Your task to perform on an android device: Go to accessibility settings Image 0: 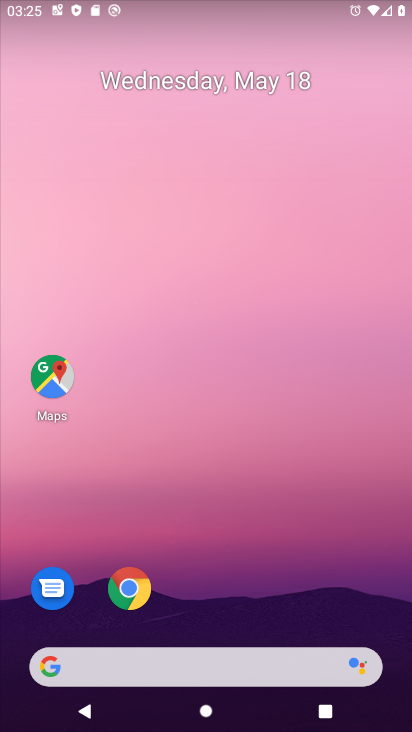
Step 0: drag from (2, 674) to (249, 13)
Your task to perform on an android device: Go to accessibility settings Image 1: 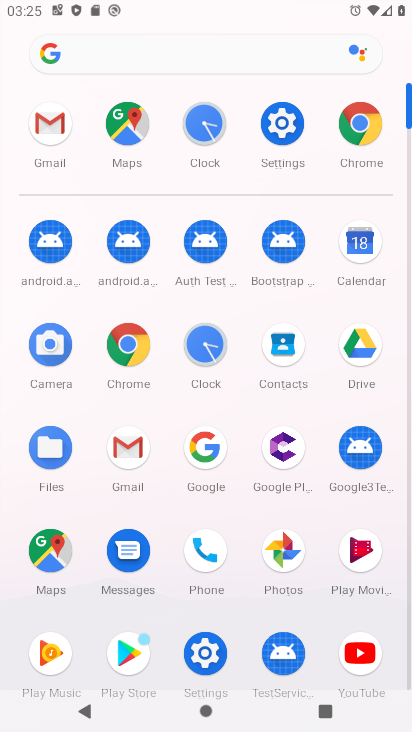
Step 1: click (286, 122)
Your task to perform on an android device: Go to accessibility settings Image 2: 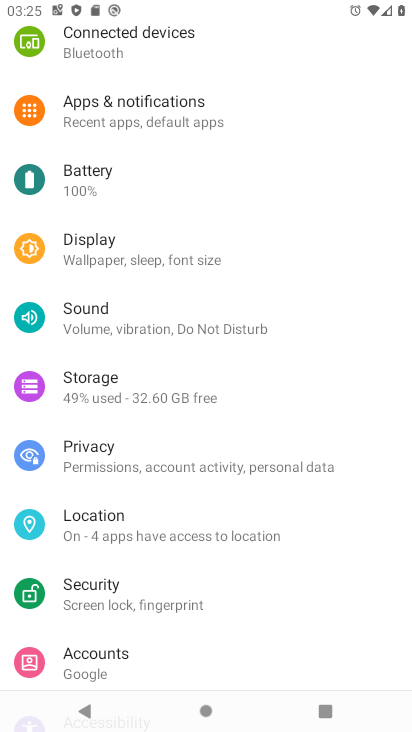
Step 2: drag from (101, 641) to (210, 208)
Your task to perform on an android device: Go to accessibility settings Image 3: 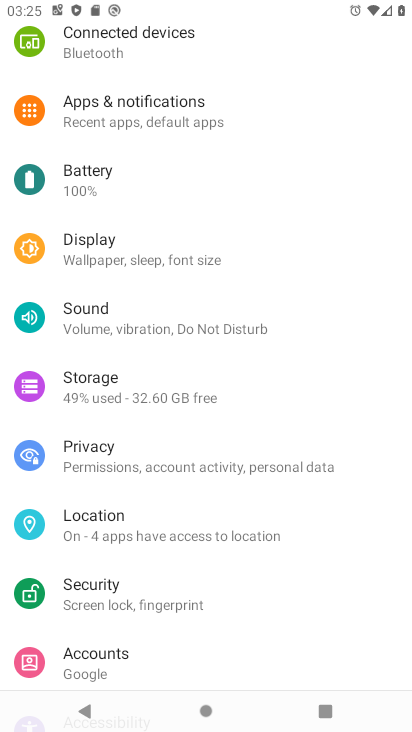
Step 3: drag from (67, 642) to (198, 234)
Your task to perform on an android device: Go to accessibility settings Image 4: 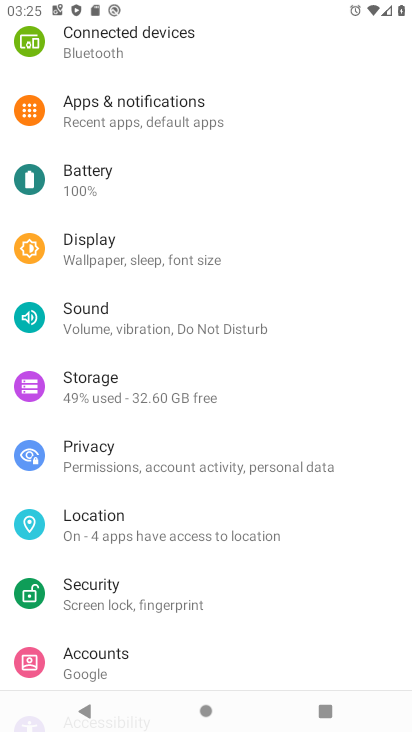
Step 4: drag from (13, 628) to (223, 153)
Your task to perform on an android device: Go to accessibility settings Image 5: 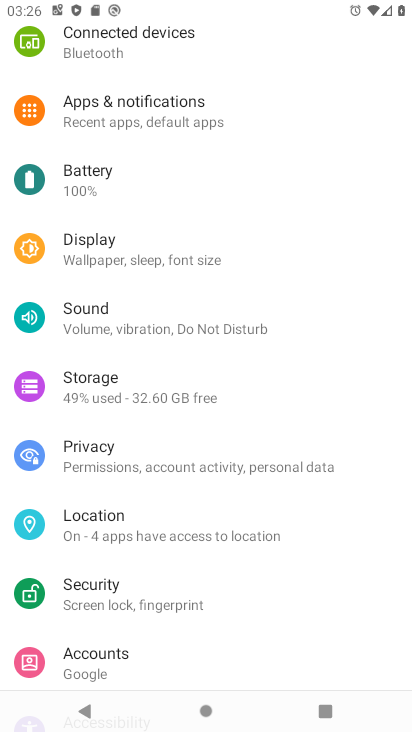
Step 5: drag from (0, 663) to (257, 155)
Your task to perform on an android device: Go to accessibility settings Image 6: 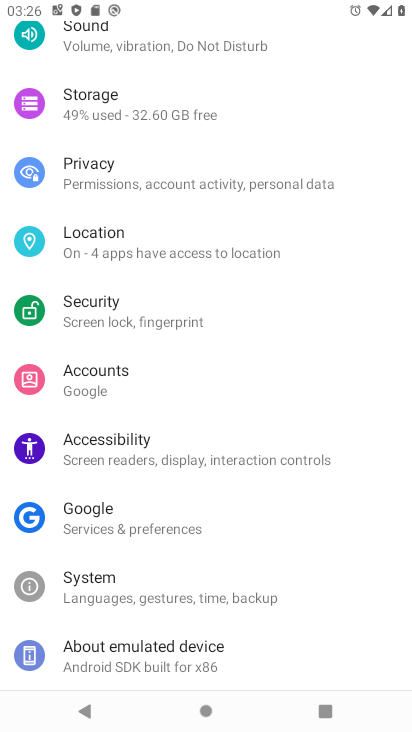
Step 6: click (139, 443)
Your task to perform on an android device: Go to accessibility settings Image 7: 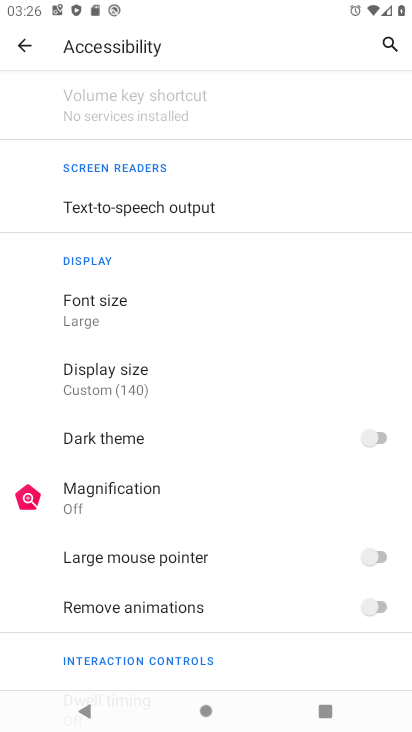
Step 7: task complete